Your task to perform on an android device: Go to display settings Image 0: 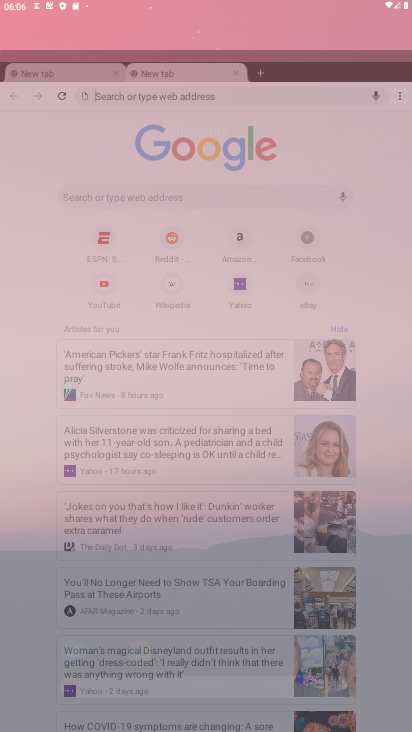
Step 0: press home button
Your task to perform on an android device: Go to display settings Image 1: 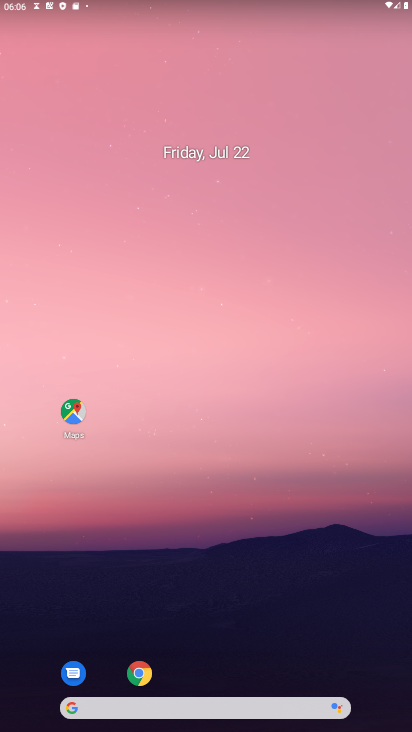
Step 1: drag from (274, 595) to (276, 275)
Your task to perform on an android device: Go to display settings Image 2: 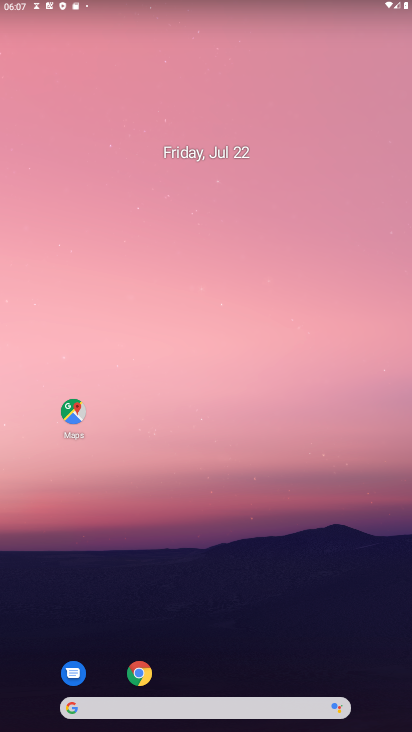
Step 2: drag from (253, 619) to (306, 206)
Your task to perform on an android device: Go to display settings Image 3: 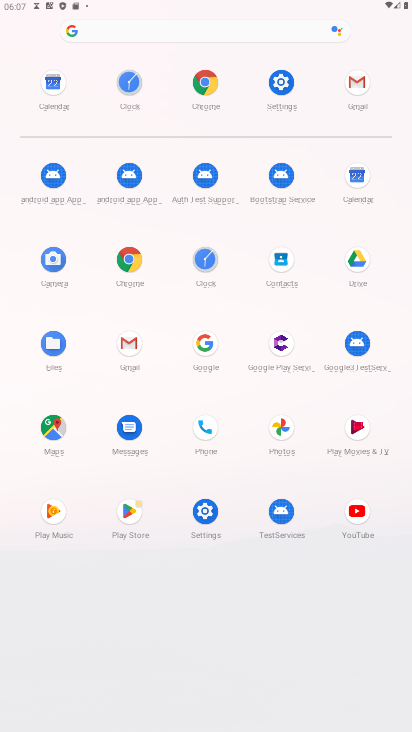
Step 3: click (278, 80)
Your task to perform on an android device: Go to display settings Image 4: 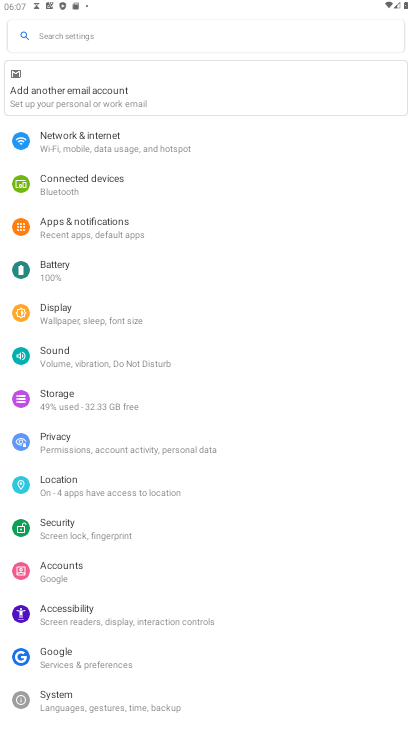
Step 4: click (44, 316)
Your task to perform on an android device: Go to display settings Image 5: 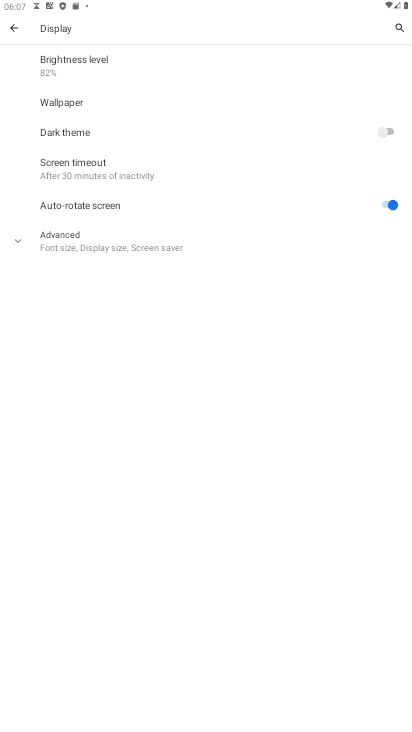
Step 5: task complete